Your task to perform on an android device: turn off picture-in-picture Image 0: 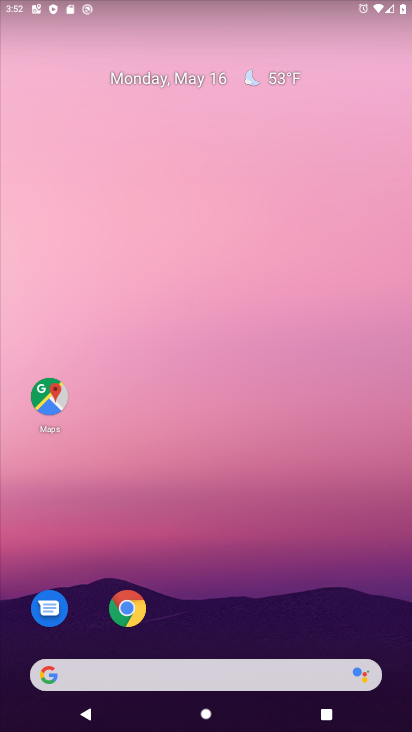
Step 0: click (127, 605)
Your task to perform on an android device: turn off picture-in-picture Image 1: 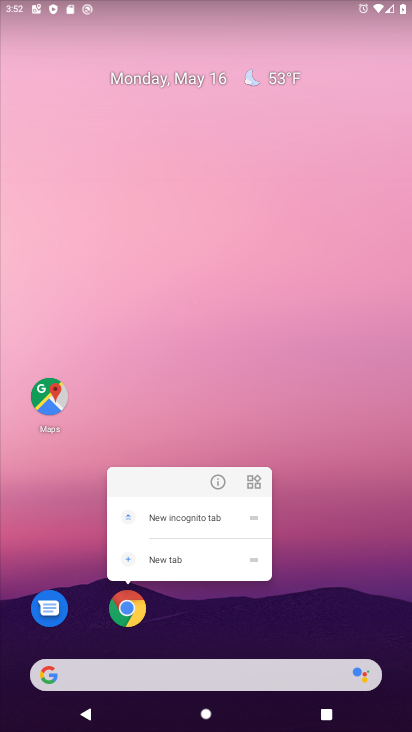
Step 1: click (220, 478)
Your task to perform on an android device: turn off picture-in-picture Image 2: 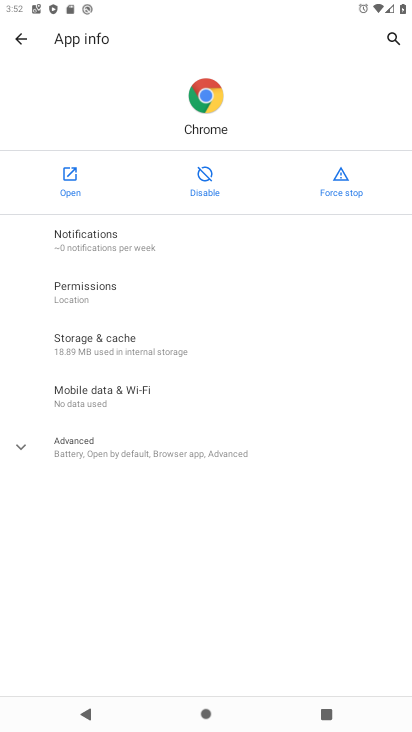
Step 2: click (124, 449)
Your task to perform on an android device: turn off picture-in-picture Image 3: 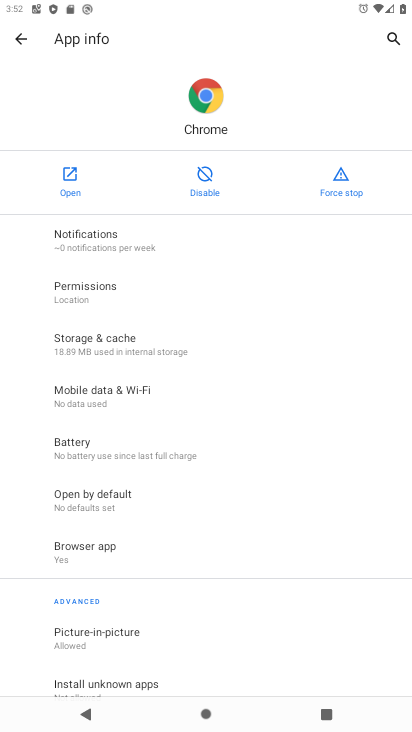
Step 3: drag from (126, 540) to (167, 453)
Your task to perform on an android device: turn off picture-in-picture Image 4: 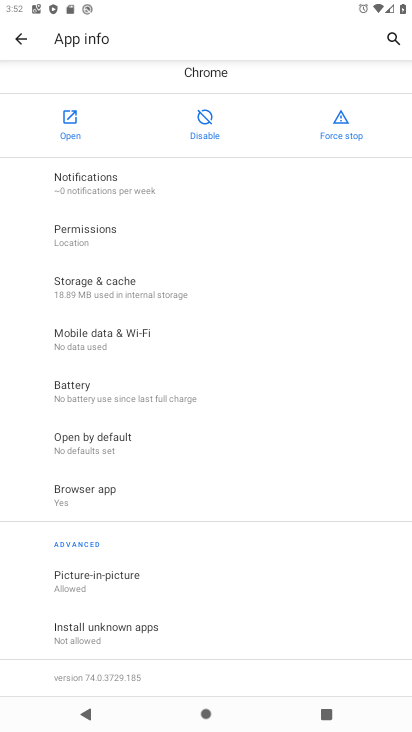
Step 4: click (86, 580)
Your task to perform on an android device: turn off picture-in-picture Image 5: 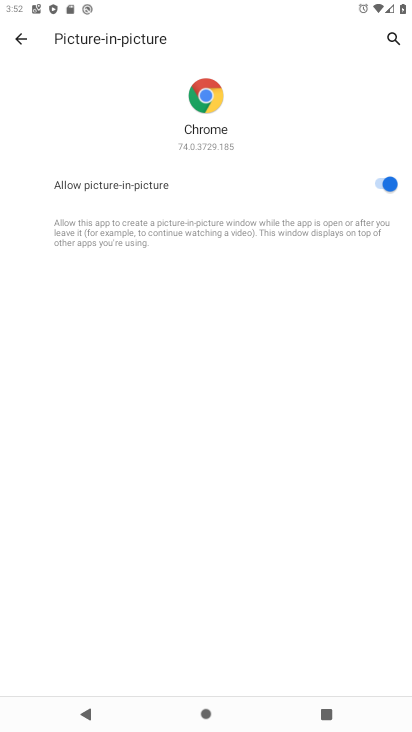
Step 5: click (393, 189)
Your task to perform on an android device: turn off picture-in-picture Image 6: 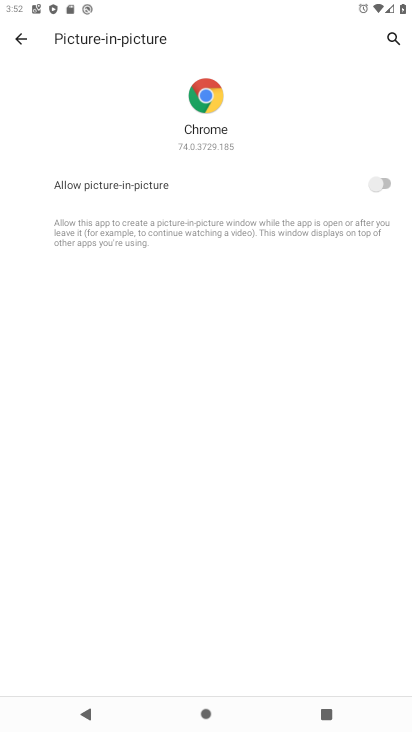
Step 6: task complete